Your task to perform on an android device: turn off notifications in google photos Image 0: 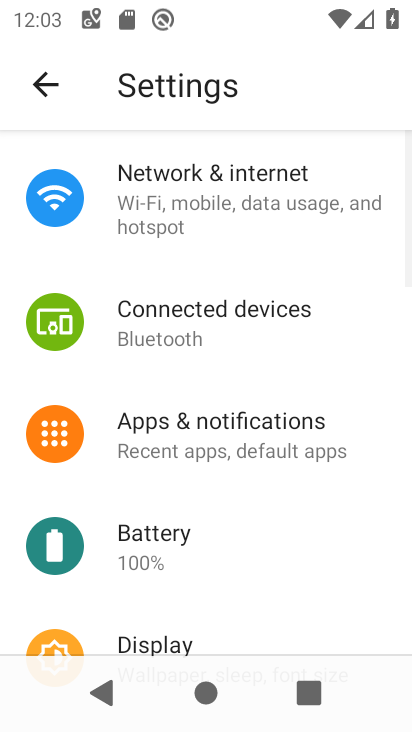
Step 0: press home button
Your task to perform on an android device: turn off notifications in google photos Image 1: 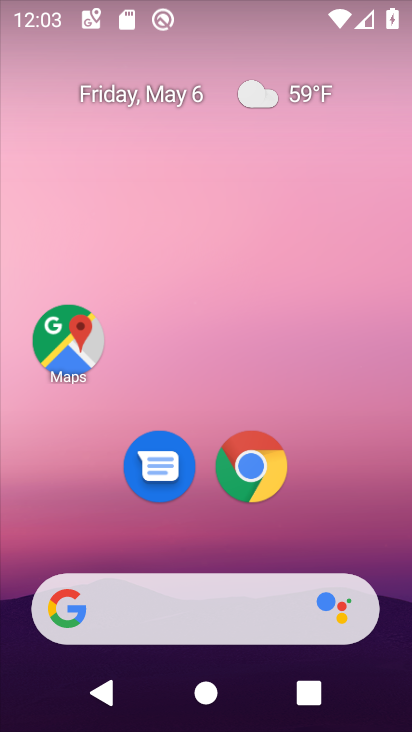
Step 1: drag from (387, 513) to (362, 156)
Your task to perform on an android device: turn off notifications in google photos Image 2: 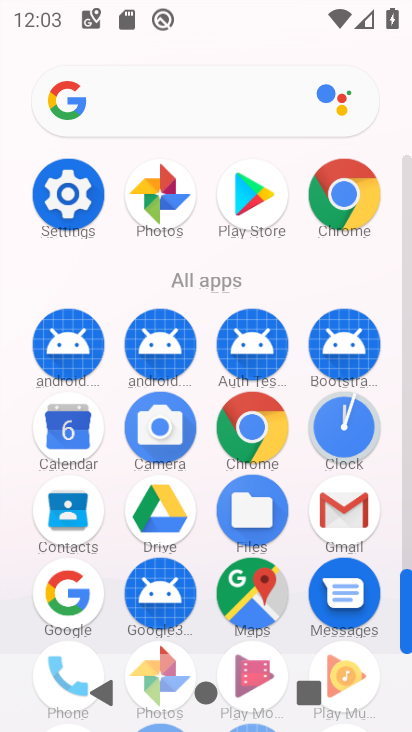
Step 2: click (160, 170)
Your task to perform on an android device: turn off notifications in google photos Image 3: 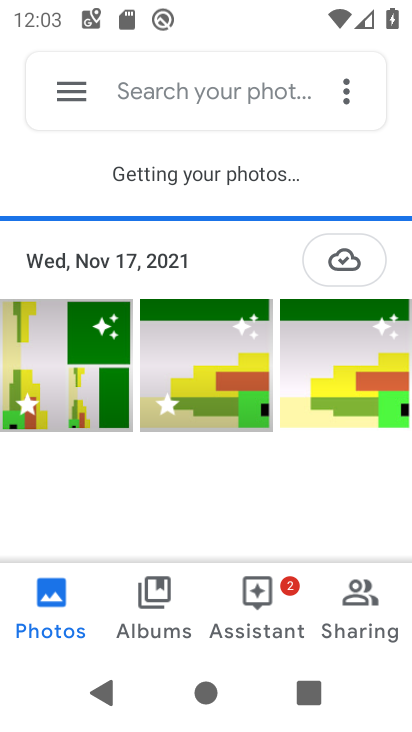
Step 3: click (65, 100)
Your task to perform on an android device: turn off notifications in google photos Image 4: 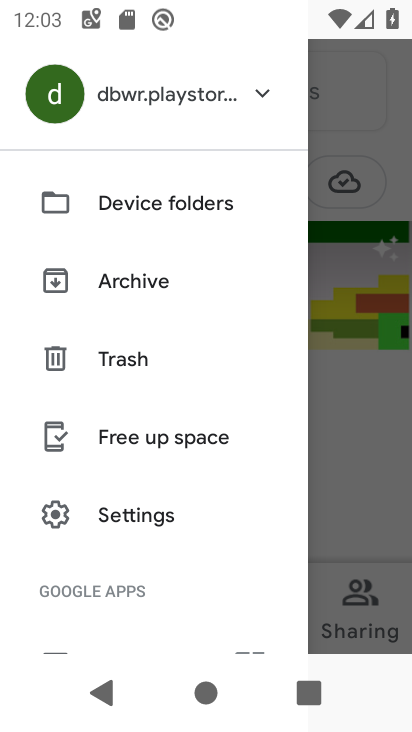
Step 4: click (142, 529)
Your task to perform on an android device: turn off notifications in google photos Image 5: 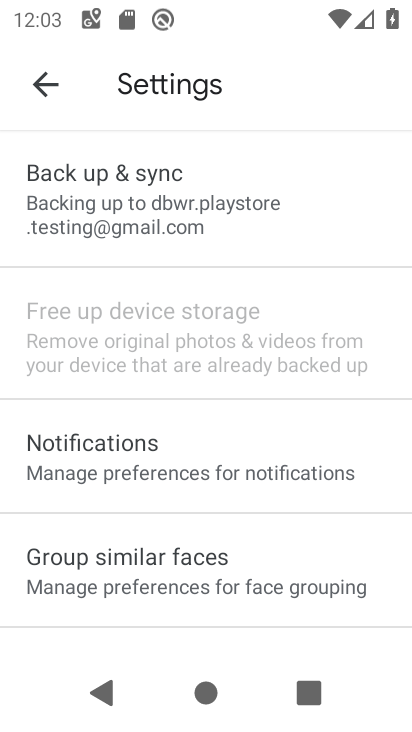
Step 5: click (238, 469)
Your task to perform on an android device: turn off notifications in google photos Image 6: 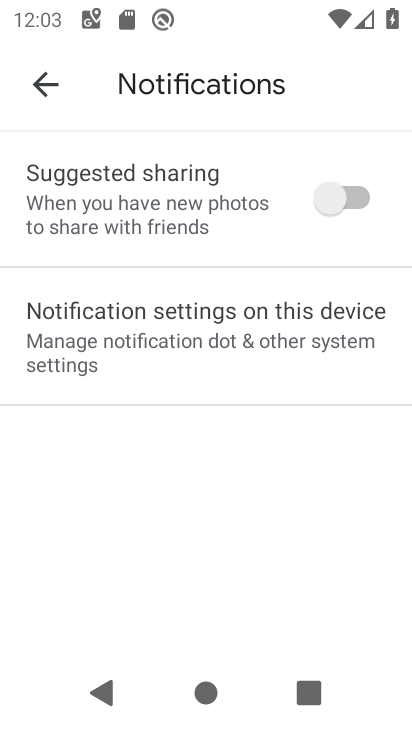
Step 6: click (296, 316)
Your task to perform on an android device: turn off notifications in google photos Image 7: 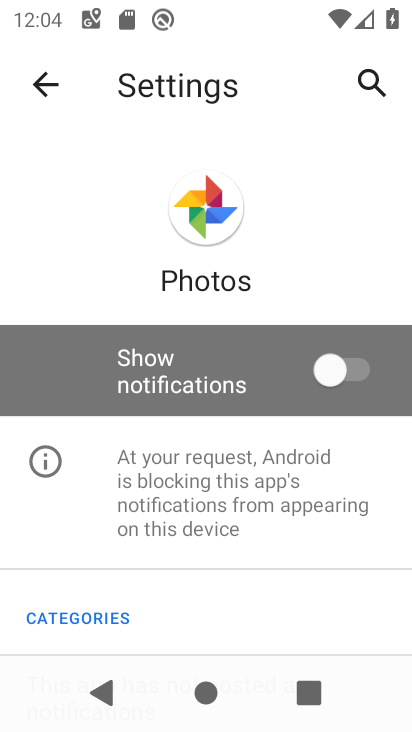
Step 7: task complete